Your task to perform on an android device: turn off sleep mode Image 0: 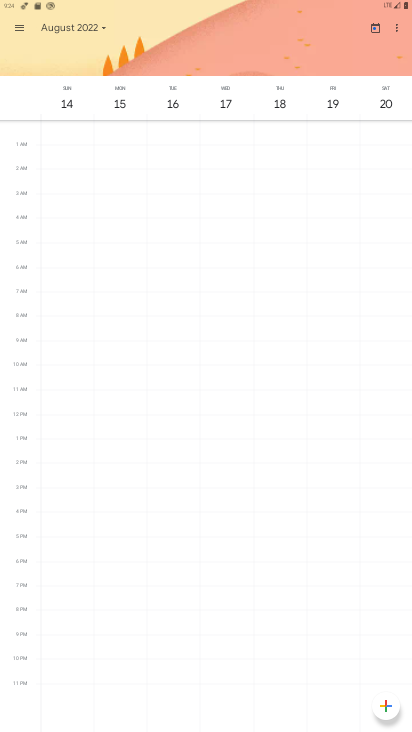
Step 0: press home button
Your task to perform on an android device: turn off sleep mode Image 1: 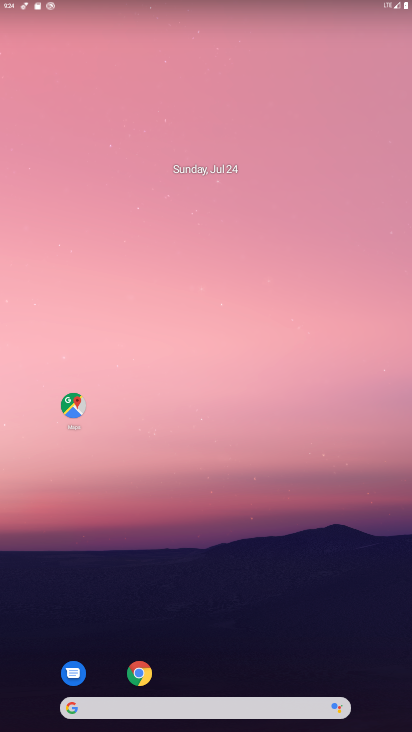
Step 1: drag from (283, 633) to (289, 348)
Your task to perform on an android device: turn off sleep mode Image 2: 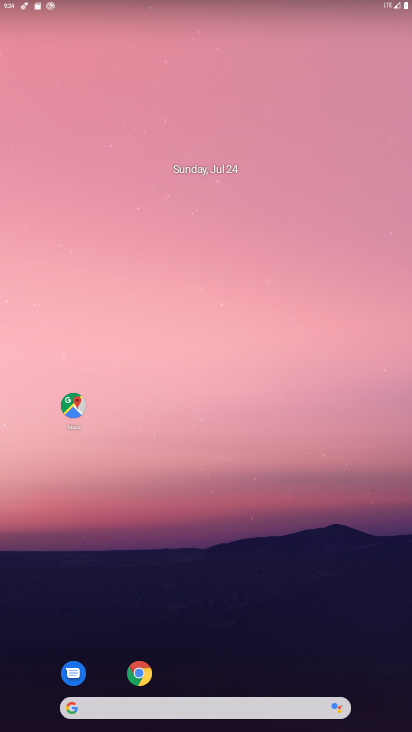
Step 2: drag from (209, 626) to (251, 14)
Your task to perform on an android device: turn off sleep mode Image 3: 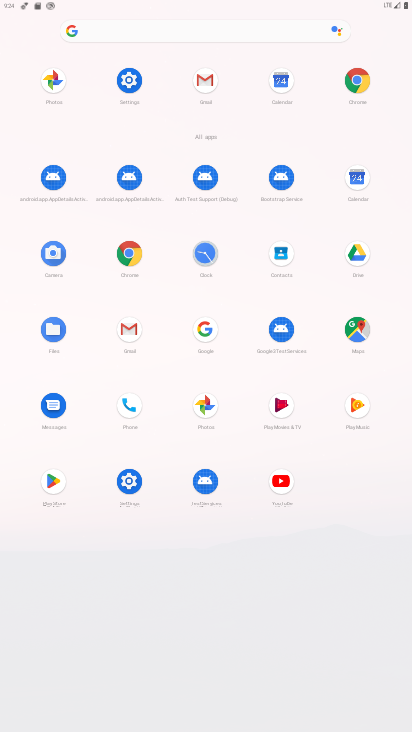
Step 3: click (130, 84)
Your task to perform on an android device: turn off sleep mode Image 4: 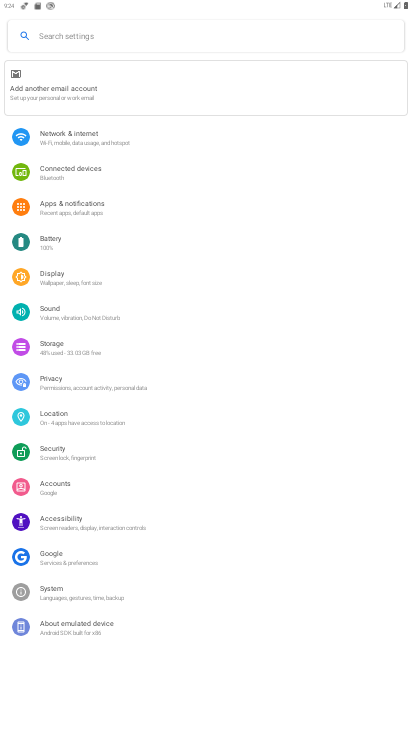
Step 4: click (167, 37)
Your task to perform on an android device: turn off sleep mode Image 5: 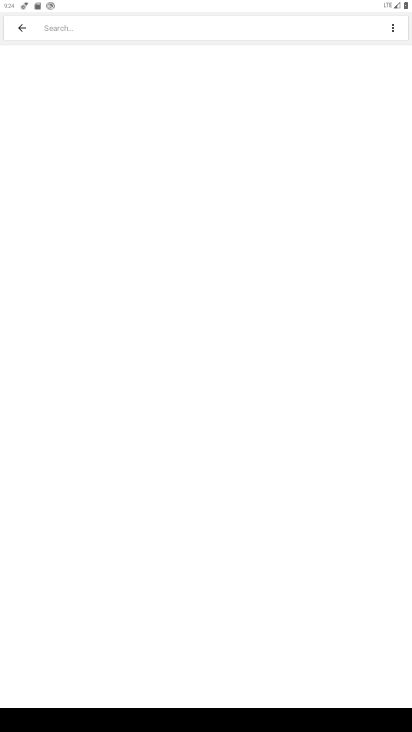
Step 5: type "sleep mode"
Your task to perform on an android device: turn off sleep mode Image 6: 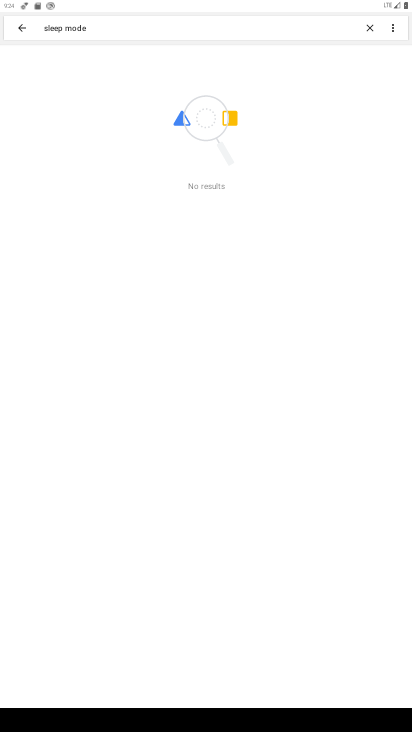
Step 6: task complete